Your task to perform on an android device: set an alarm Image 0: 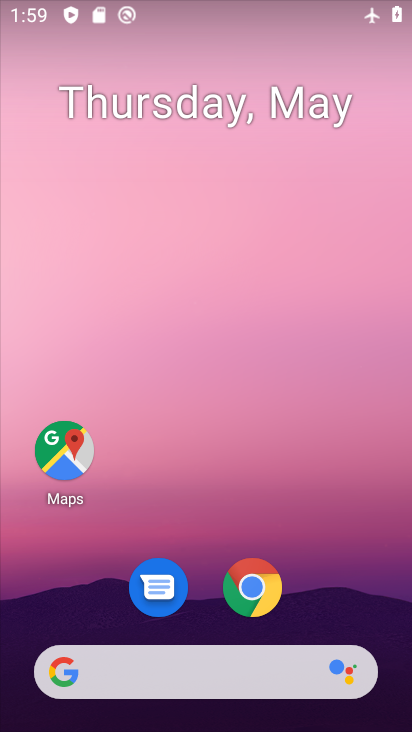
Step 0: drag from (328, 519) to (272, 143)
Your task to perform on an android device: set an alarm Image 1: 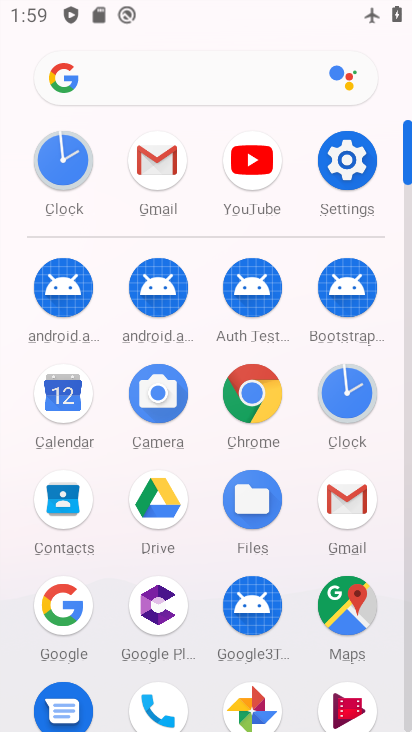
Step 1: click (339, 403)
Your task to perform on an android device: set an alarm Image 2: 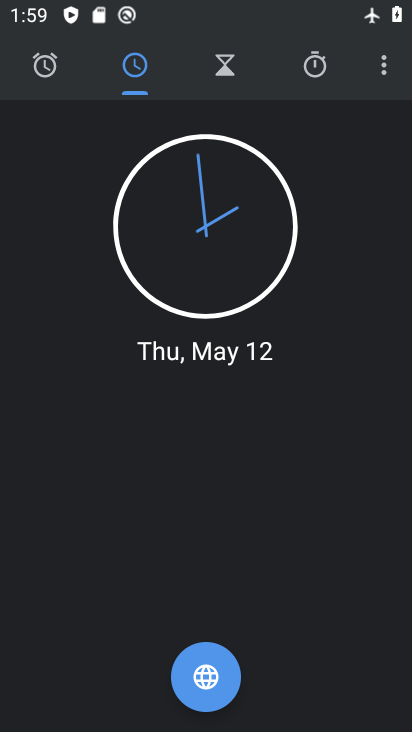
Step 2: click (60, 66)
Your task to perform on an android device: set an alarm Image 3: 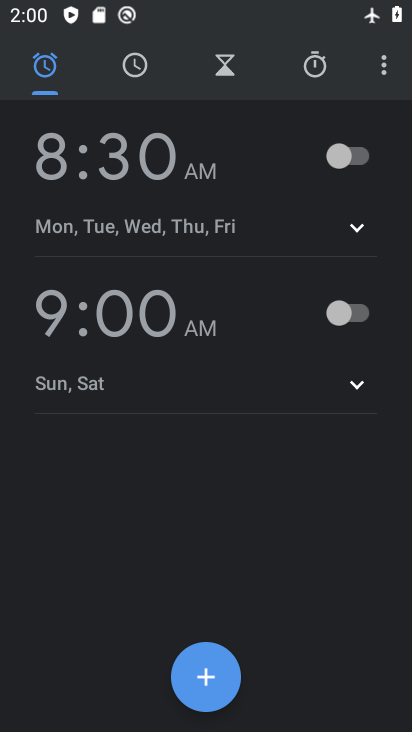
Step 3: click (200, 677)
Your task to perform on an android device: set an alarm Image 4: 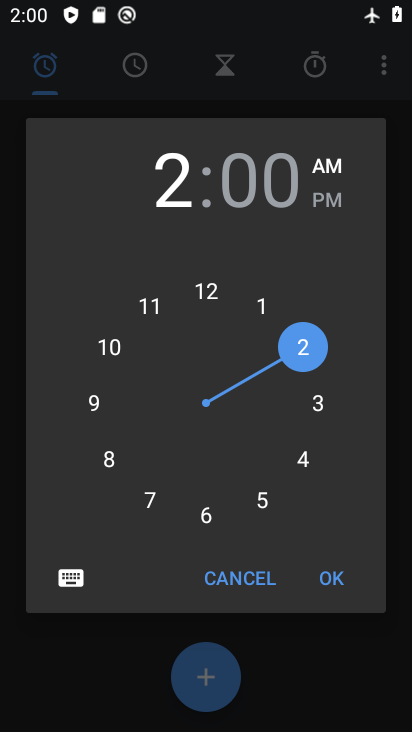
Step 4: click (333, 576)
Your task to perform on an android device: set an alarm Image 5: 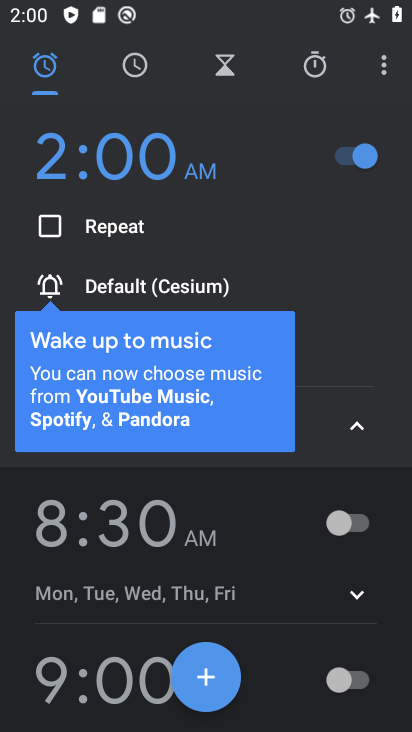
Step 5: task complete